Your task to perform on an android device: Open CNN.com Image 0: 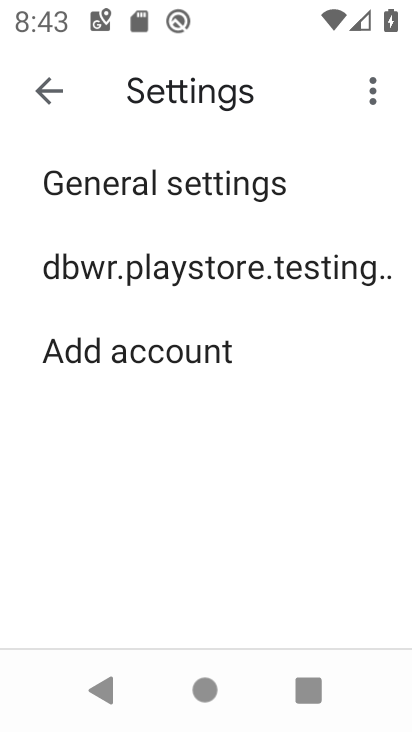
Step 0: press home button
Your task to perform on an android device: Open CNN.com Image 1: 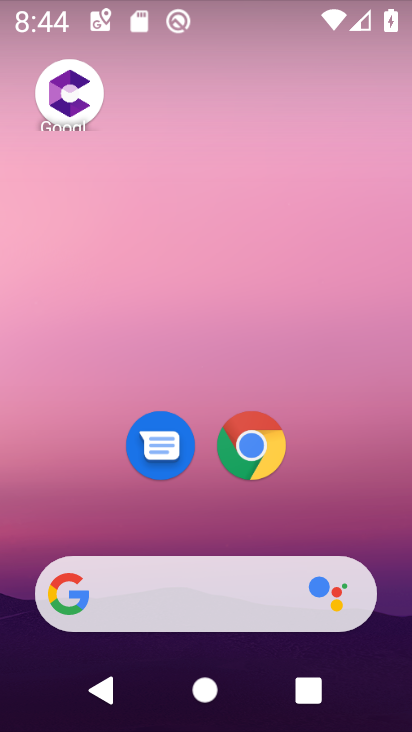
Step 1: click (248, 441)
Your task to perform on an android device: Open CNN.com Image 2: 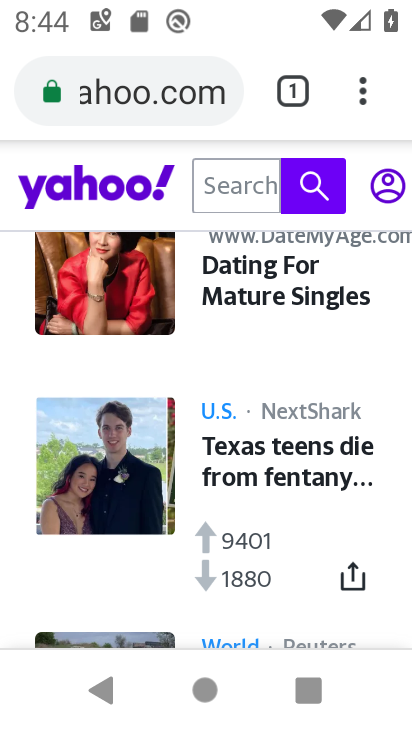
Step 2: click (280, 91)
Your task to perform on an android device: Open CNN.com Image 3: 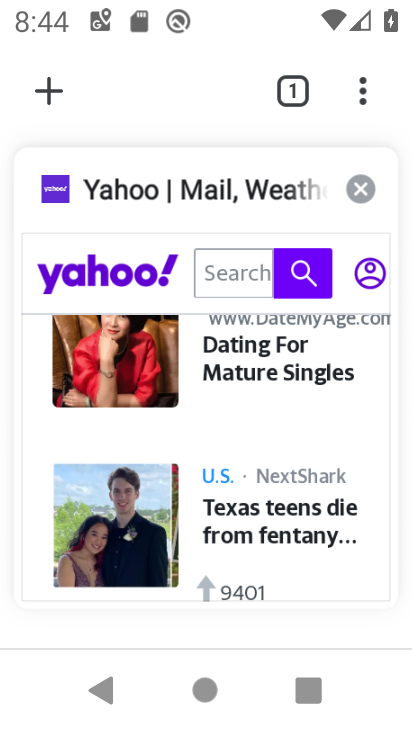
Step 3: click (362, 184)
Your task to perform on an android device: Open CNN.com Image 4: 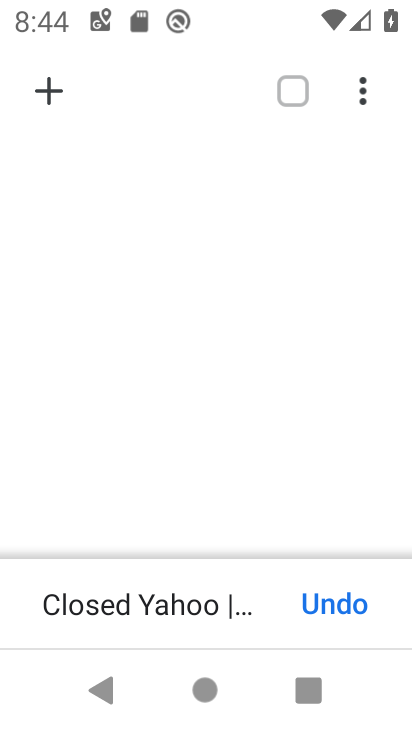
Step 4: click (59, 98)
Your task to perform on an android device: Open CNN.com Image 5: 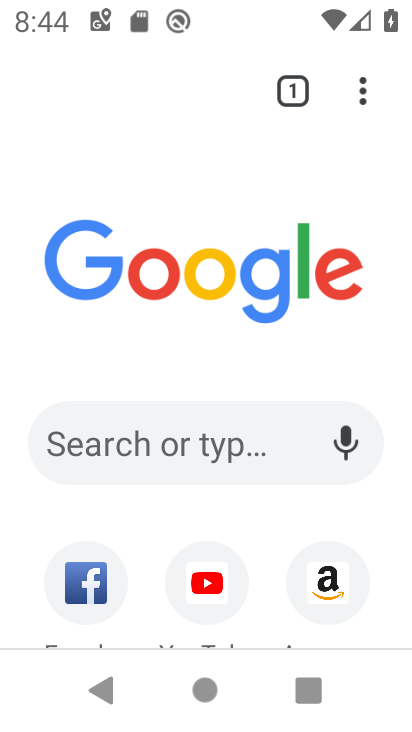
Step 5: click (168, 441)
Your task to perform on an android device: Open CNN.com Image 6: 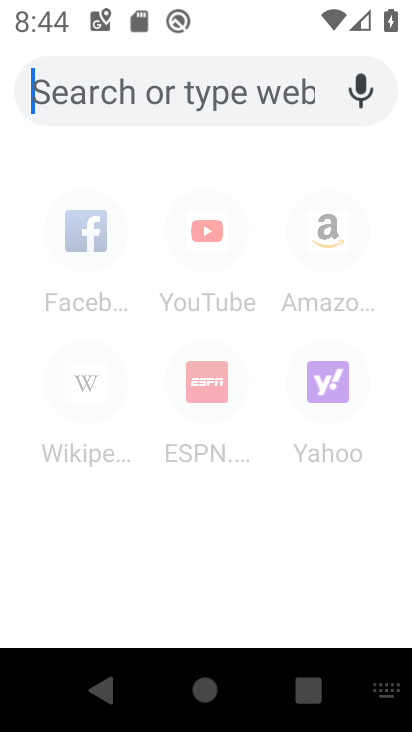
Step 6: type "cnn.com"
Your task to perform on an android device: Open CNN.com Image 7: 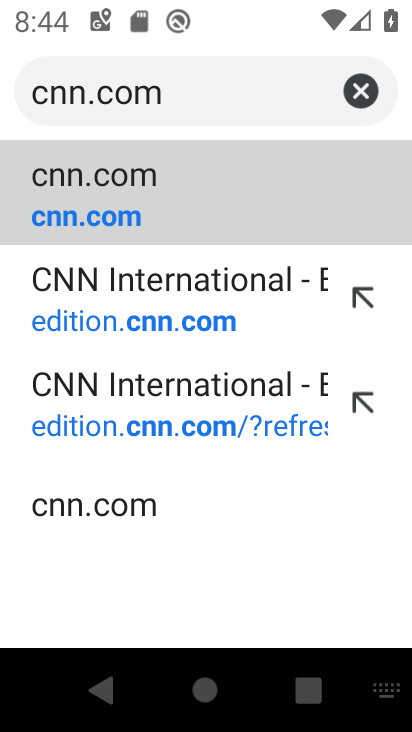
Step 7: click (123, 210)
Your task to perform on an android device: Open CNN.com Image 8: 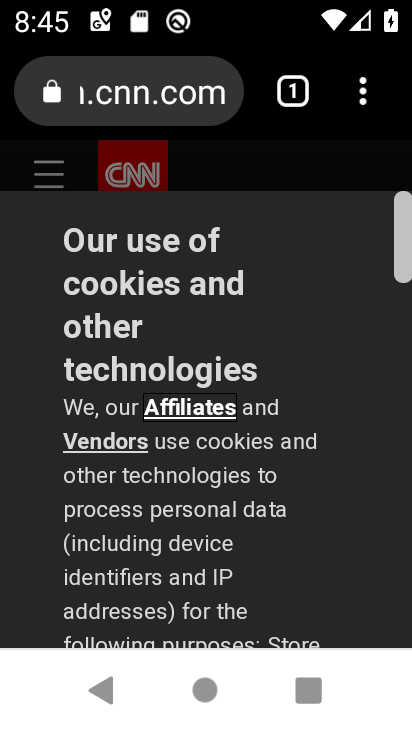
Step 8: drag from (250, 571) to (261, 84)
Your task to perform on an android device: Open CNN.com Image 9: 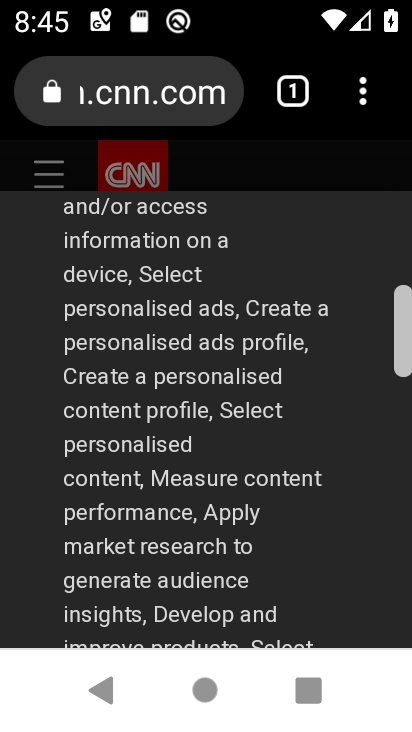
Step 9: drag from (219, 585) to (204, 141)
Your task to perform on an android device: Open CNN.com Image 10: 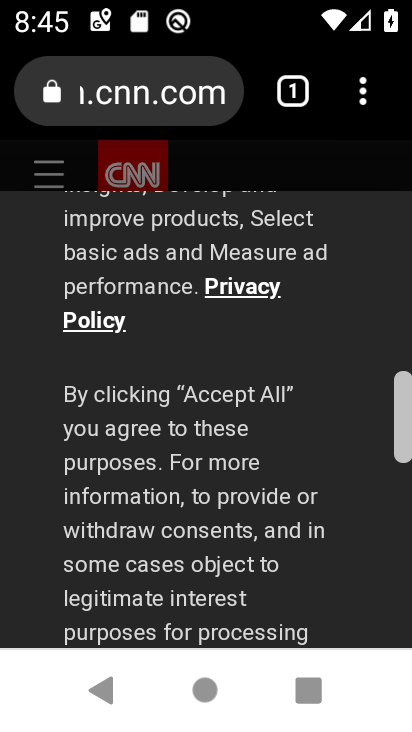
Step 10: drag from (194, 571) to (218, 124)
Your task to perform on an android device: Open CNN.com Image 11: 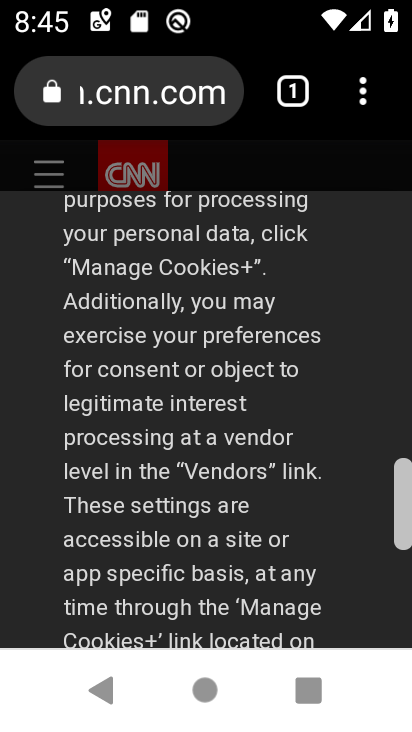
Step 11: drag from (232, 607) to (233, 194)
Your task to perform on an android device: Open CNN.com Image 12: 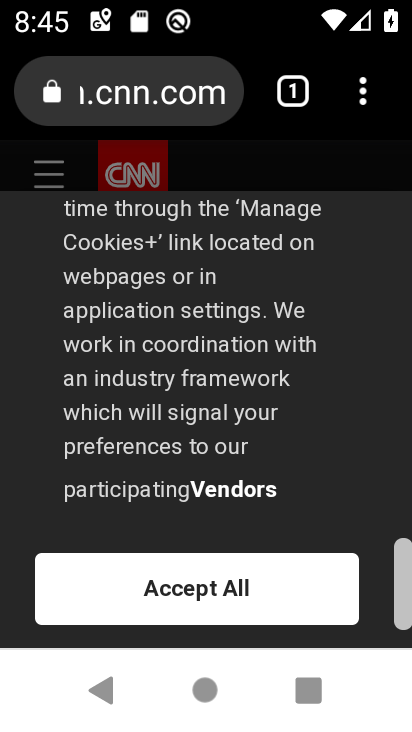
Step 12: click (211, 577)
Your task to perform on an android device: Open CNN.com Image 13: 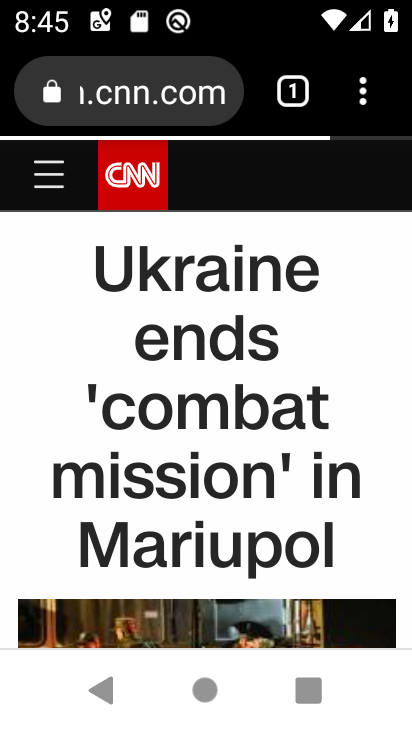
Step 13: task complete